Your task to perform on an android device: What's the weather? Image 0: 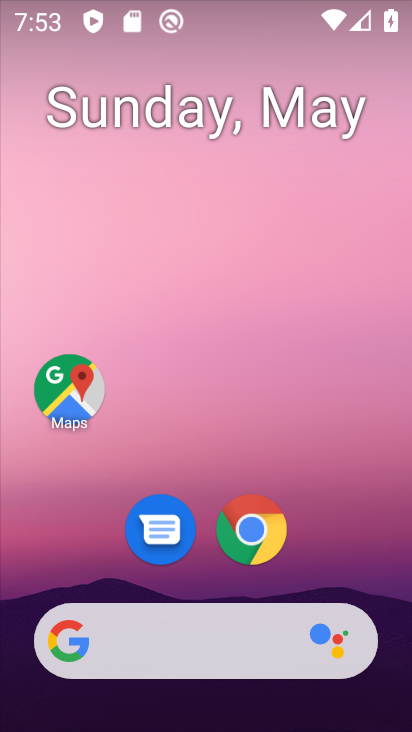
Step 0: drag from (363, 547) to (368, 78)
Your task to perform on an android device: What's the weather? Image 1: 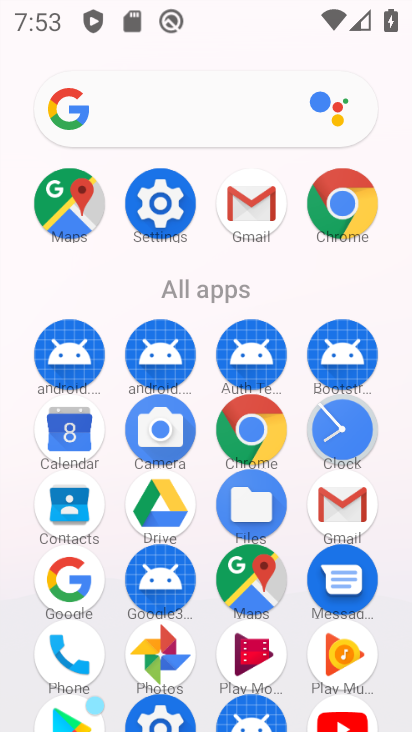
Step 1: click (229, 435)
Your task to perform on an android device: What's the weather? Image 2: 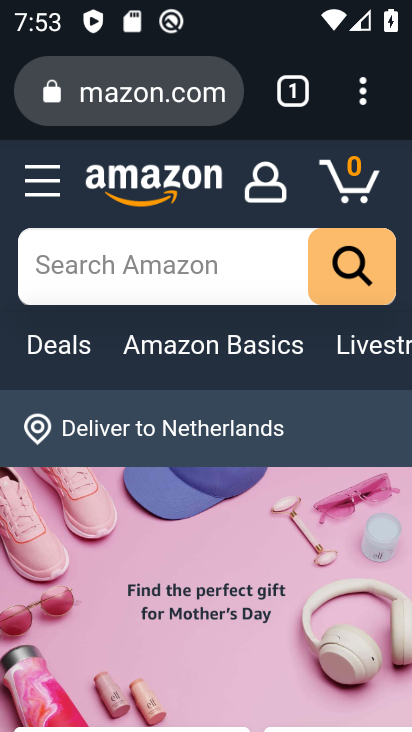
Step 2: click (177, 86)
Your task to perform on an android device: What's the weather? Image 3: 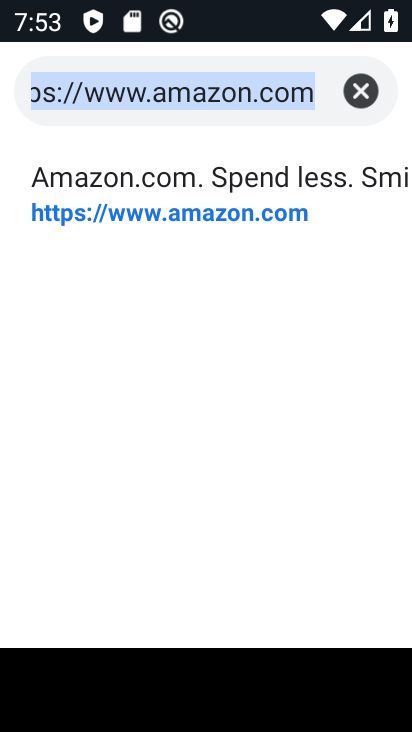
Step 3: click (362, 91)
Your task to perform on an android device: What's the weather? Image 4: 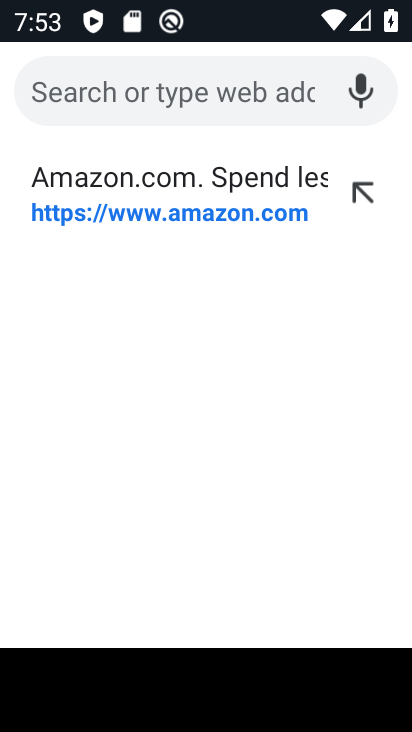
Step 4: type "what's the weather"
Your task to perform on an android device: What's the weather? Image 5: 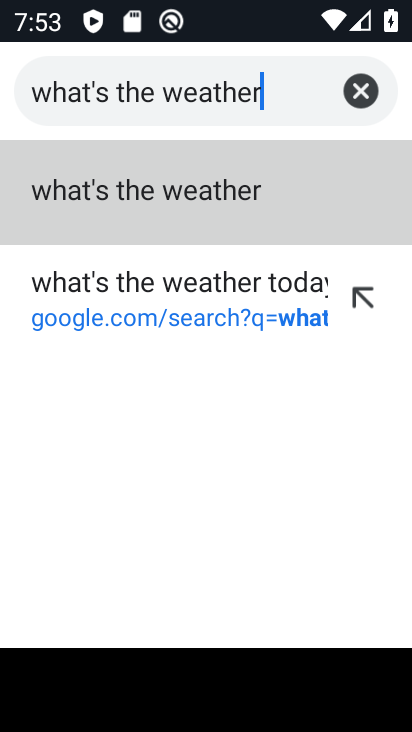
Step 5: click (244, 201)
Your task to perform on an android device: What's the weather? Image 6: 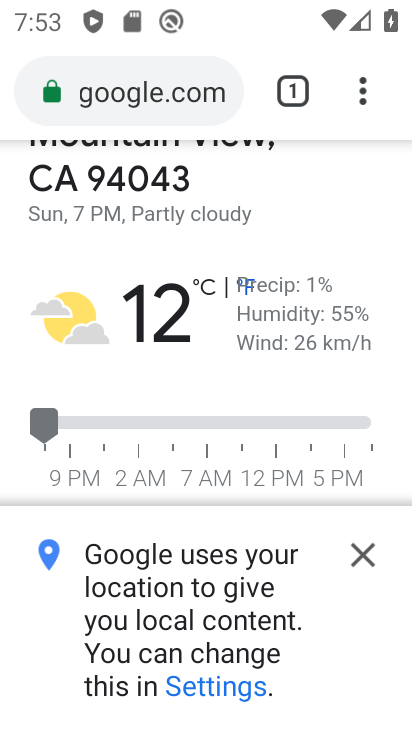
Step 6: click (360, 555)
Your task to perform on an android device: What's the weather? Image 7: 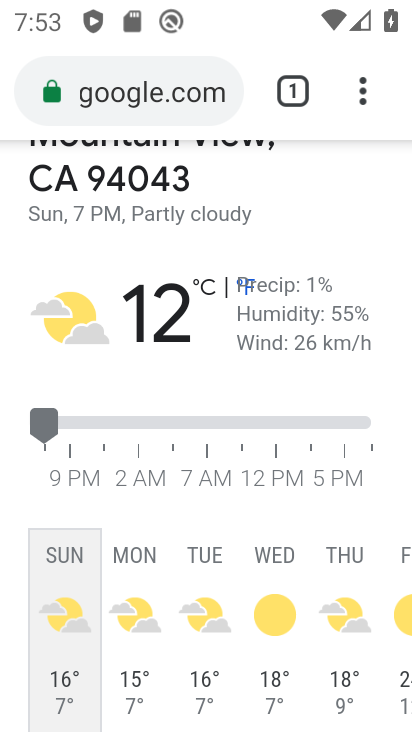
Step 7: task complete